Your task to perform on an android device: Do I have any events tomorrow? Image 0: 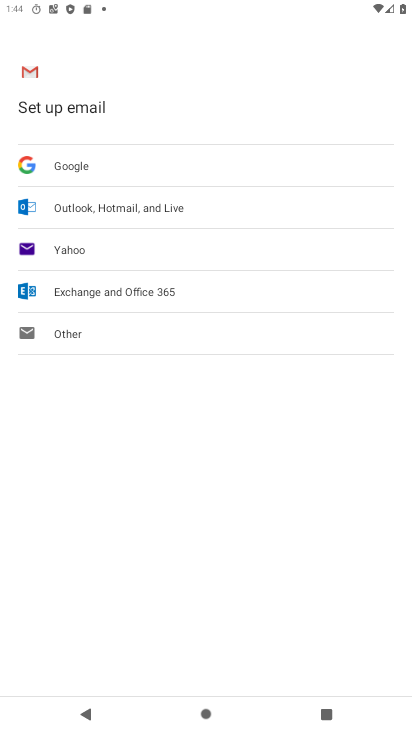
Step 0: press home button
Your task to perform on an android device: Do I have any events tomorrow? Image 1: 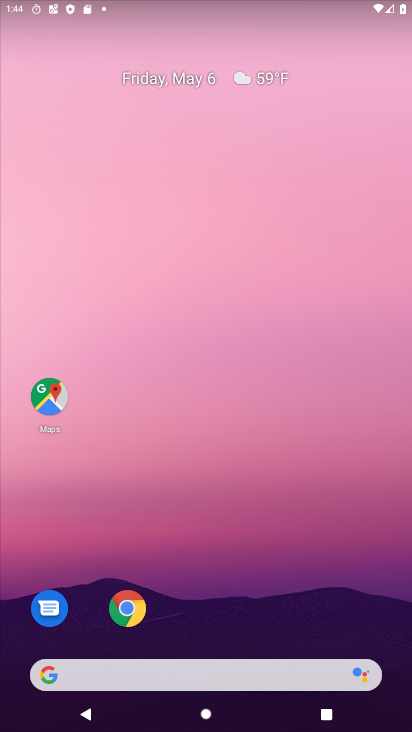
Step 1: drag from (170, 508) to (243, 143)
Your task to perform on an android device: Do I have any events tomorrow? Image 2: 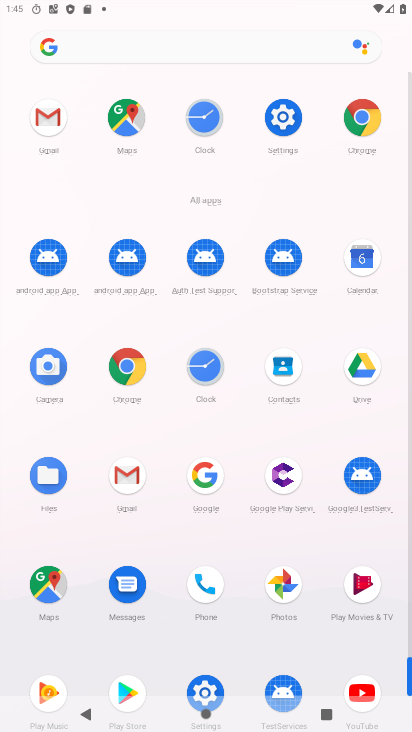
Step 2: click (360, 262)
Your task to perform on an android device: Do I have any events tomorrow? Image 3: 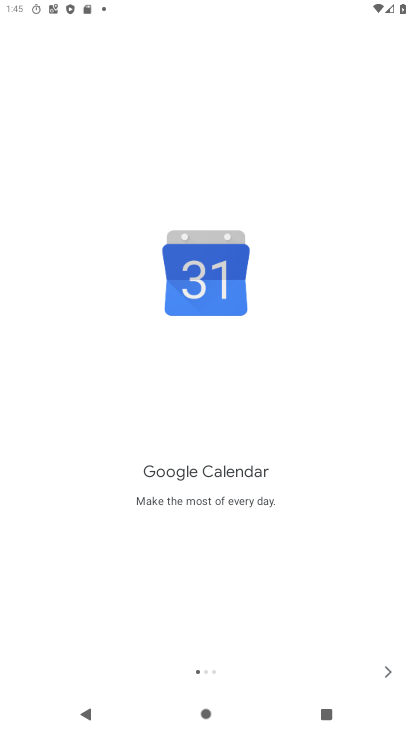
Step 3: click (388, 672)
Your task to perform on an android device: Do I have any events tomorrow? Image 4: 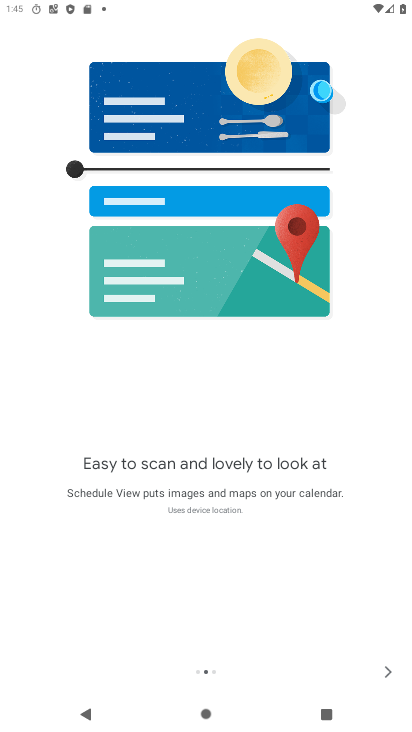
Step 4: click (388, 672)
Your task to perform on an android device: Do I have any events tomorrow? Image 5: 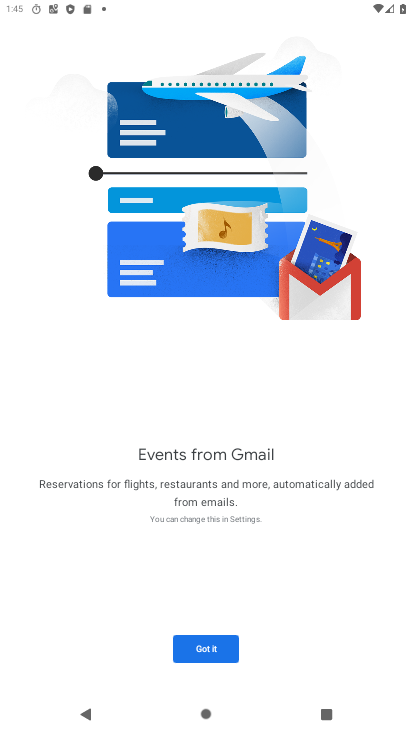
Step 5: click (388, 671)
Your task to perform on an android device: Do I have any events tomorrow? Image 6: 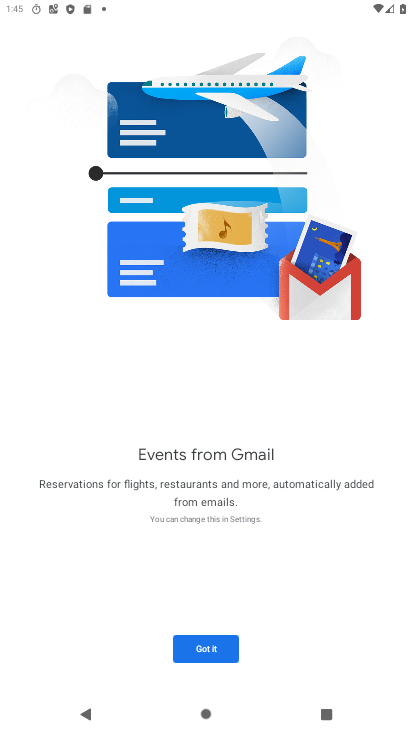
Step 6: click (208, 647)
Your task to perform on an android device: Do I have any events tomorrow? Image 7: 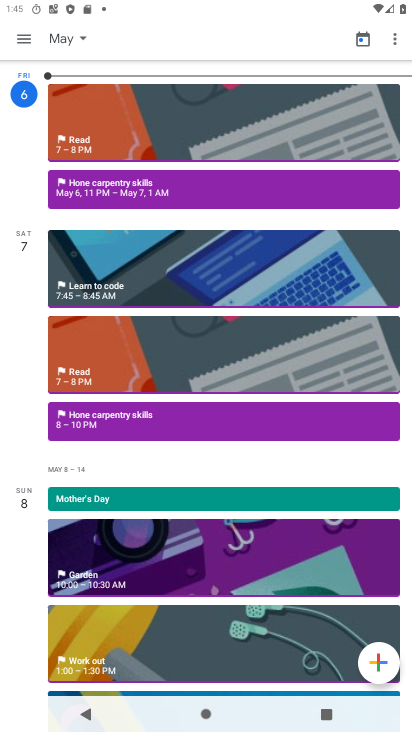
Step 7: click (76, 43)
Your task to perform on an android device: Do I have any events tomorrow? Image 8: 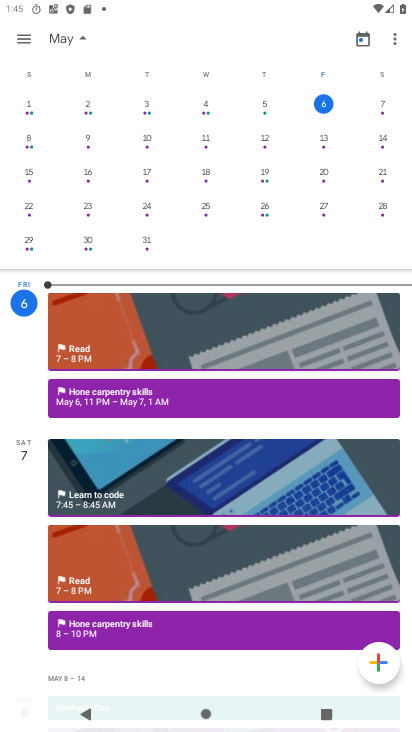
Step 8: click (382, 100)
Your task to perform on an android device: Do I have any events tomorrow? Image 9: 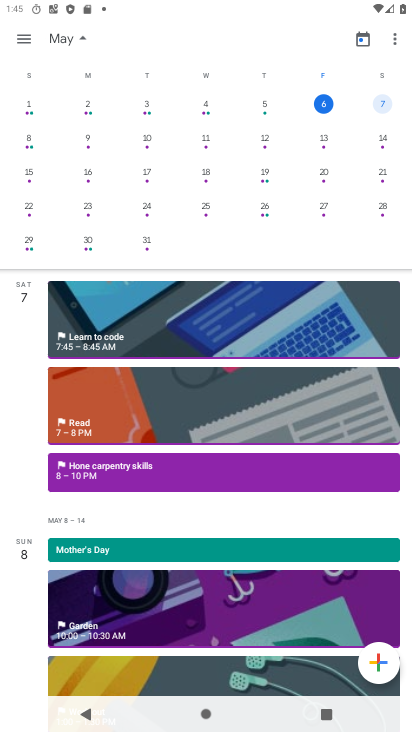
Step 9: task complete